Your task to perform on an android device: What's on my calendar today? Image 0: 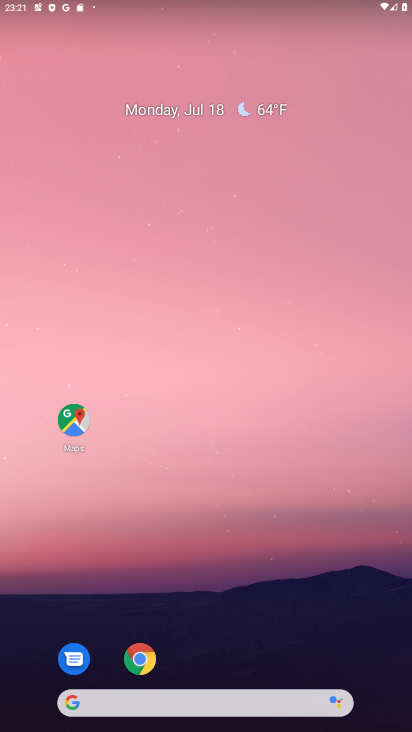
Step 0: press home button
Your task to perform on an android device: What's on my calendar today? Image 1: 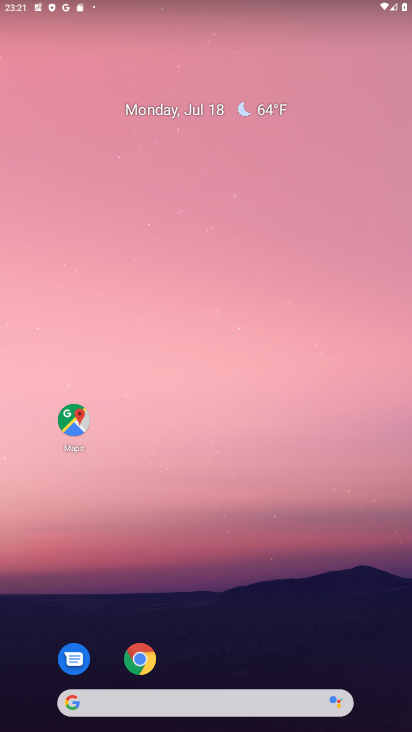
Step 1: drag from (282, 637) to (314, 5)
Your task to perform on an android device: What's on my calendar today? Image 2: 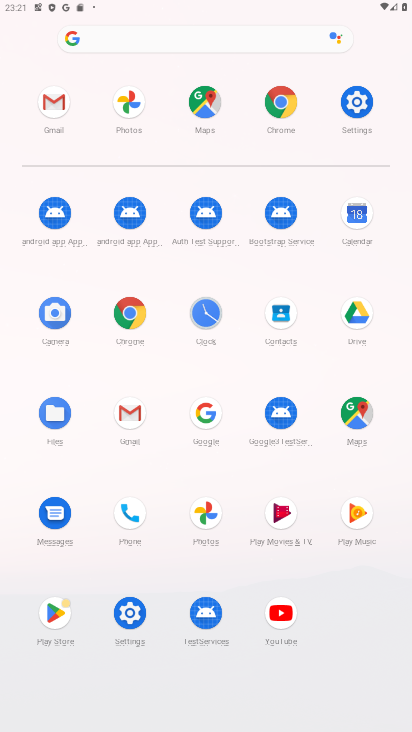
Step 2: click (340, 219)
Your task to perform on an android device: What's on my calendar today? Image 3: 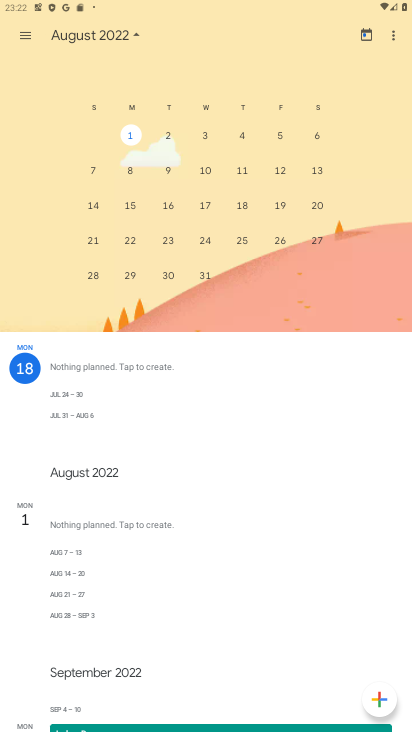
Step 3: drag from (66, 198) to (404, 183)
Your task to perform on an android device: What's on my calendar today? Image 4: 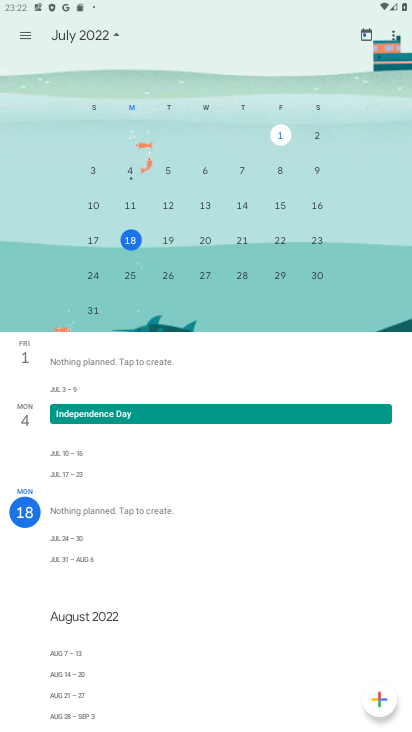
Step 4: click (131, 247)
Your task to perform on an android device: What's on my calendar today? Image 5: 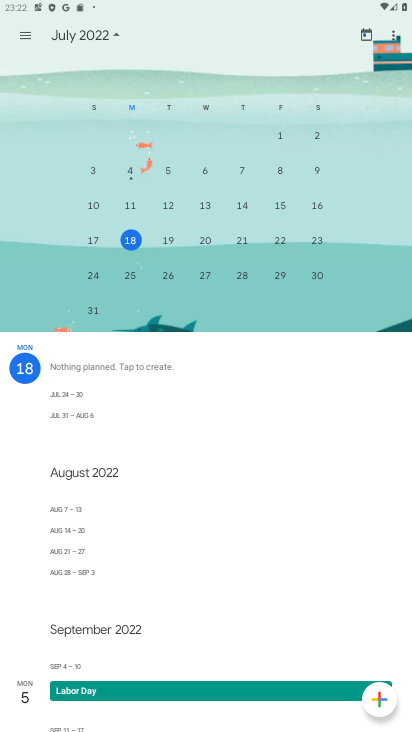
Step 5: click (173, 241)
Your task to perform on an android device: What's on my calendar today? Image 6: 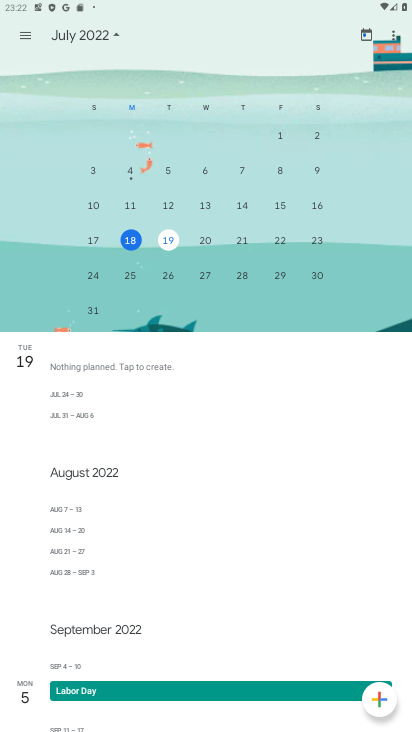
Step 6: click (173, 241)
Your task to perform on an android device: What's on my calendar today? Image 7: 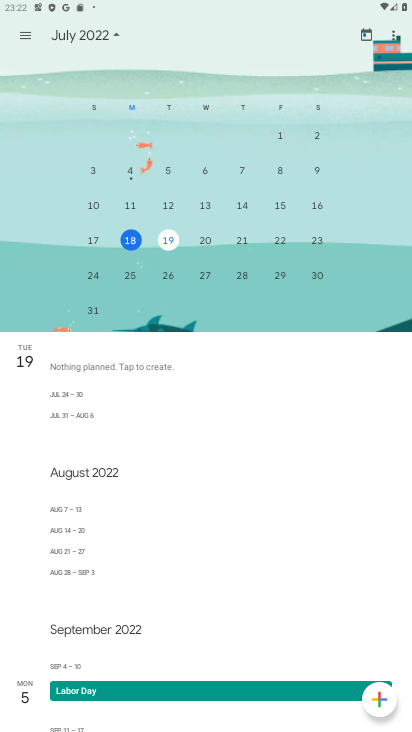
Step 7: click (108, 35)
Your task to perform on an android device: What's on my calendar today? Image 8: 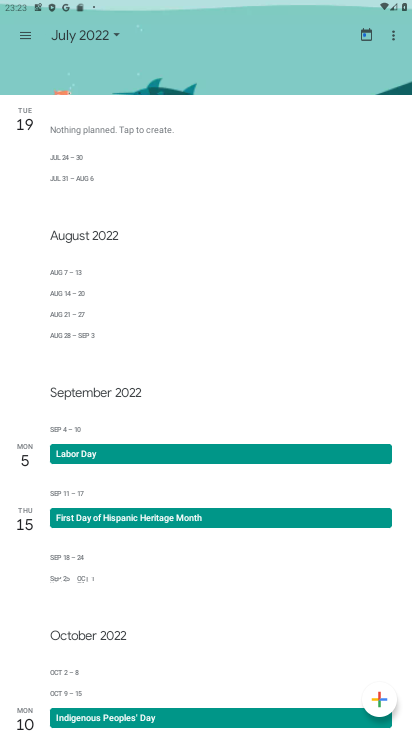
Step 8: task complete